Your task to perform on an android device: Play the last video I watched on Youtube Image 0: 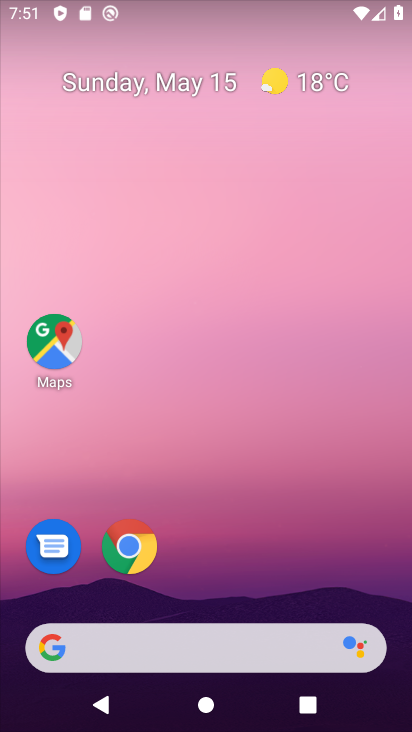
Step 0: drag from (244, 556) to (223, 14)
Your task to perform on an android device: Play the last video I watched on Youtube Image 1: 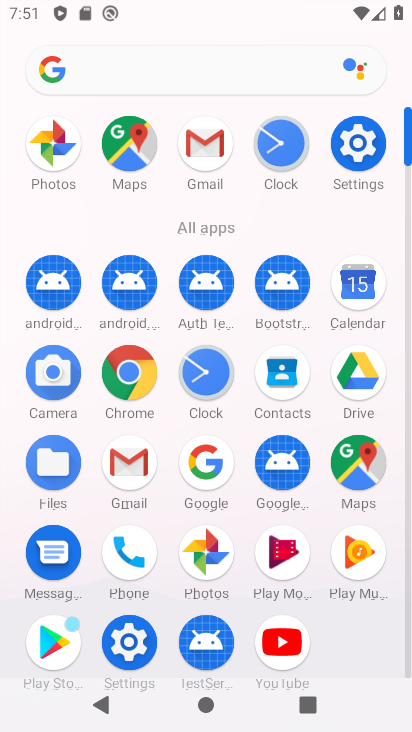
Step 1: click (282, 639)
Your task to perform on an android device: Play the last video I watched on Youtube Image 2: 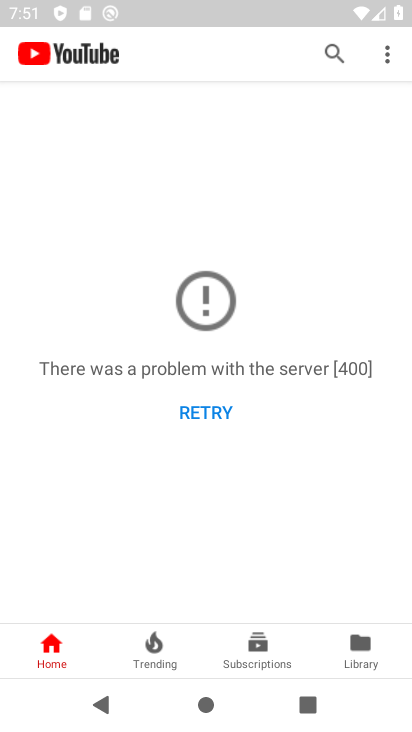
Step 2: click (201, 408)
Your task to perform on an android device: Play the last video I watched on Youtube Image 3: 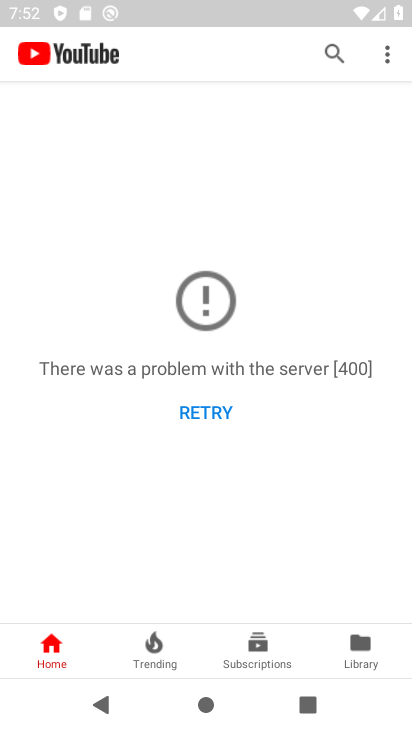
Step 3: click (196, 411)
Your task to perform on an android device: Play the last video I watched on Youtube Image 4: 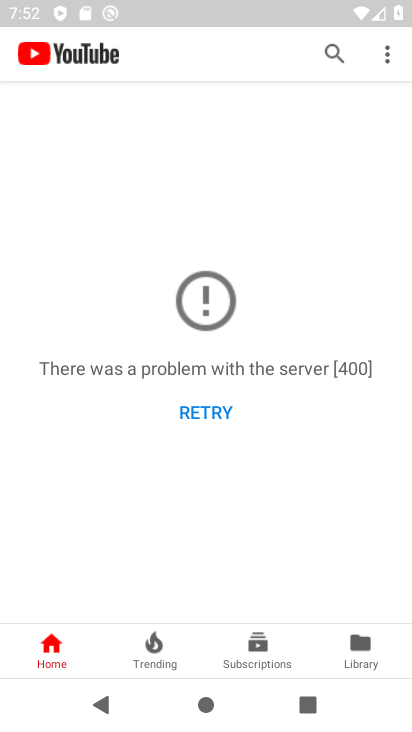
Step 4: click (196, 411)
Your task to perform on an android device: Play the last video I watched on Youtube Image 5: 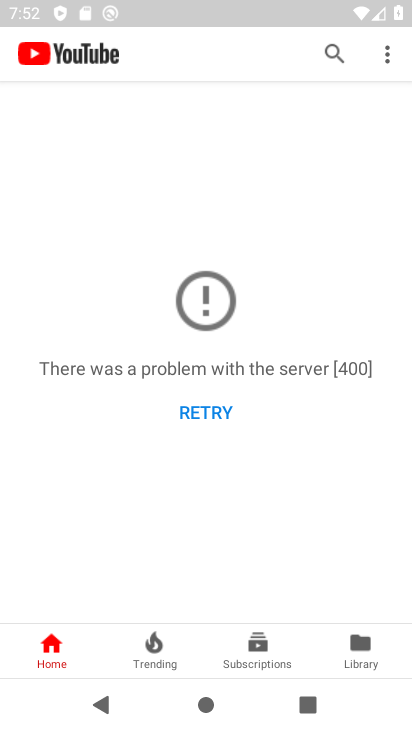
Step 5: click (361, 642)
Your task to perform on an android device: Play the last video I watched on Youtube Image 6: 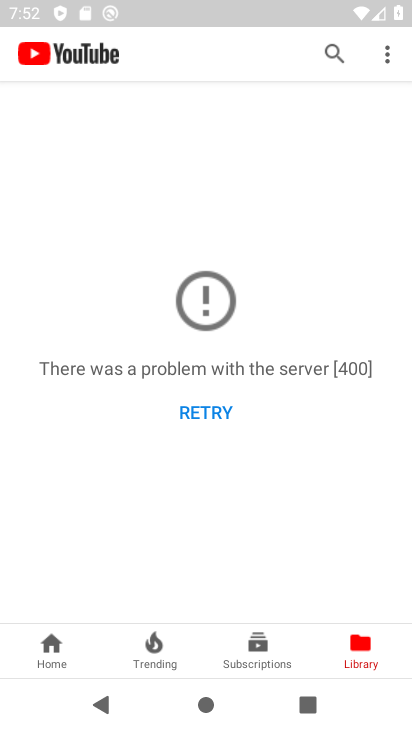
Step 6: click (361, 641)
Your task to perform on an android device: Play the last video I watched on Youtube Image 7: 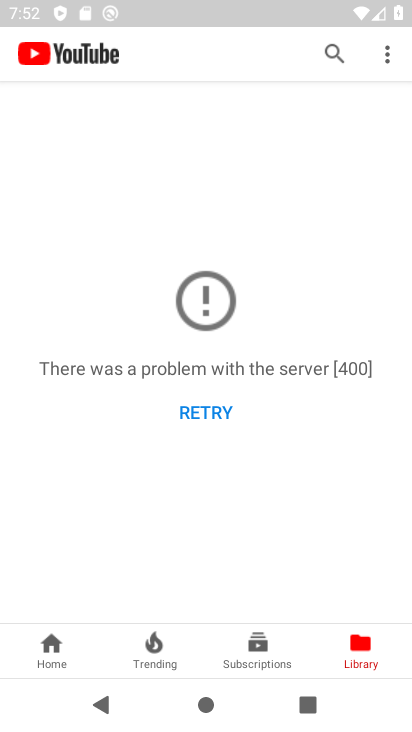
Step 7: click (209, 406)
Your task to perform on an android device: Play the last video I watched on Youtube Image 8: 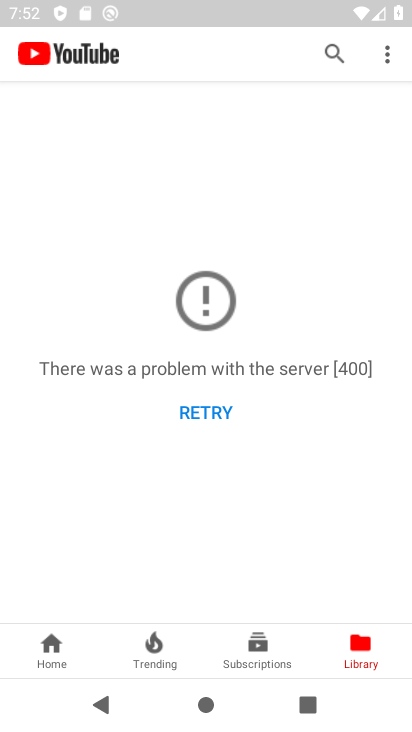
Step 8: click (209, 407)
Your task to perform on an android device: Play the last video I watched on Youtube Image 9: 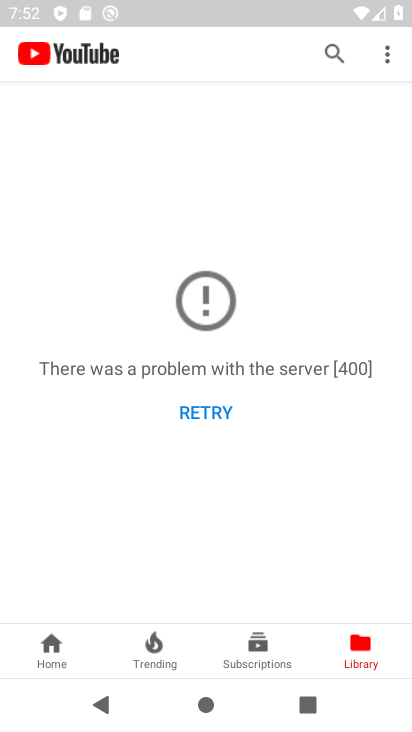
Step 9: click (209, 407)
Your task to perform on an android device: Play the last video I watched on Youtube Image 10: 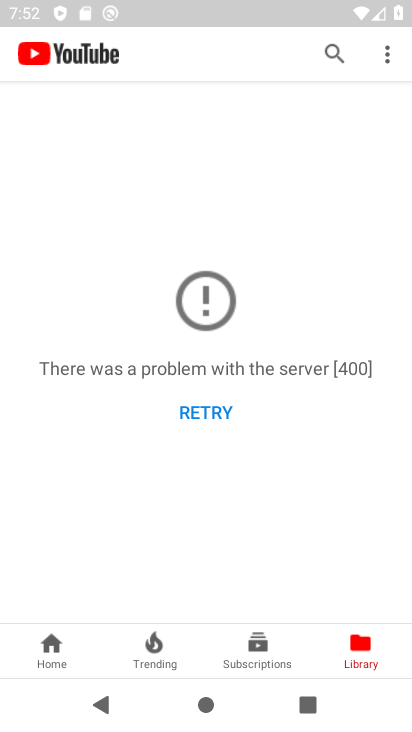
Step 10: click (269, 630)
Your task to perform on an android device: Play the last video I watched on Youtube Image 11: 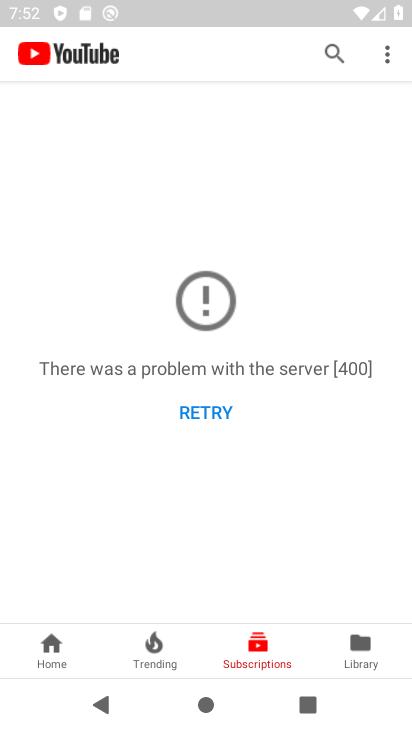
Step 11: click (158, 645)
Your task to perform on an android device: Play the last video I watched on Youtube Image 12: 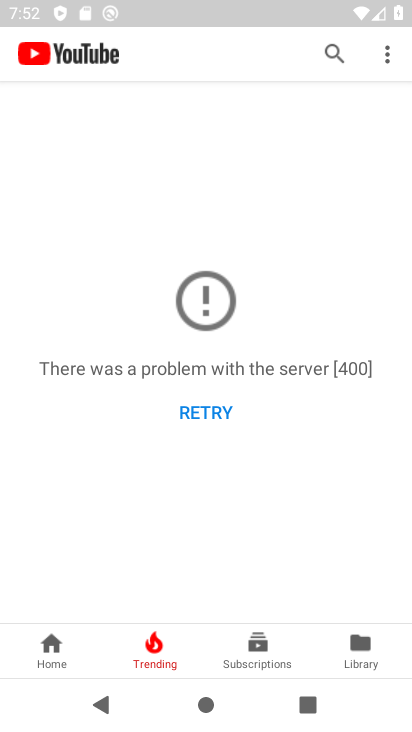
Step 12: click (44, 648)
Your task to perform on an android device: Play the last video I watched on Youtube Image 13: 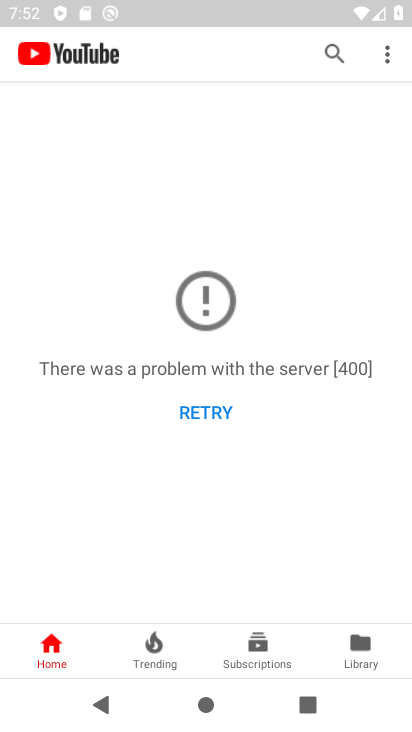
Step 13: task complete